Your task to perform on an android device: Show me the alarms in the clock app Image 0: 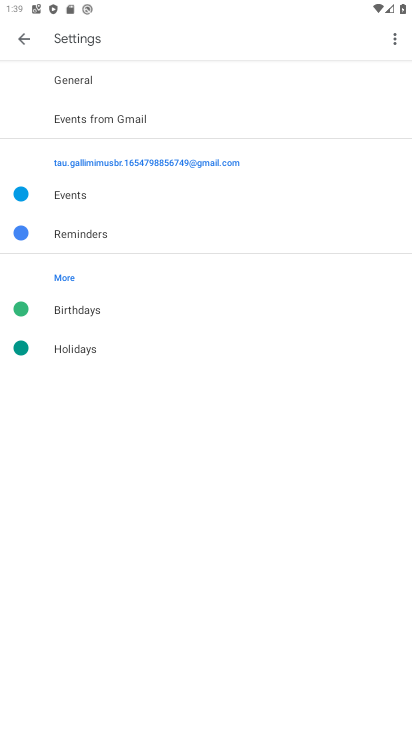
Step 0: press home button
Your task to perform on an android device: Show me the alarms in the clock app Image 1: 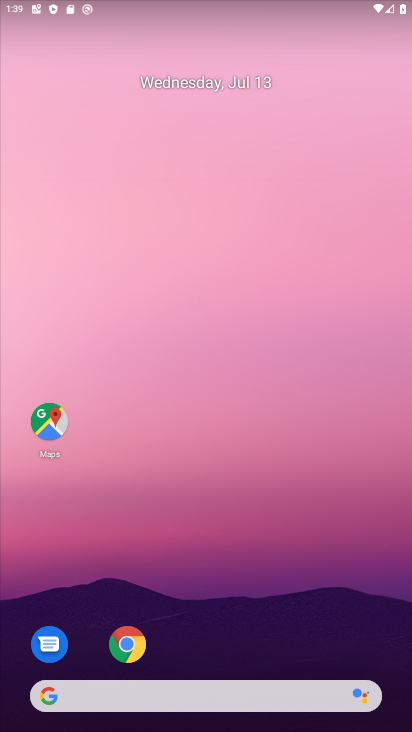
Step 1: drag from (222, 626) to (334, 31)
Your task to perform on an android device: Show me the alarms in the clock app Image 2: 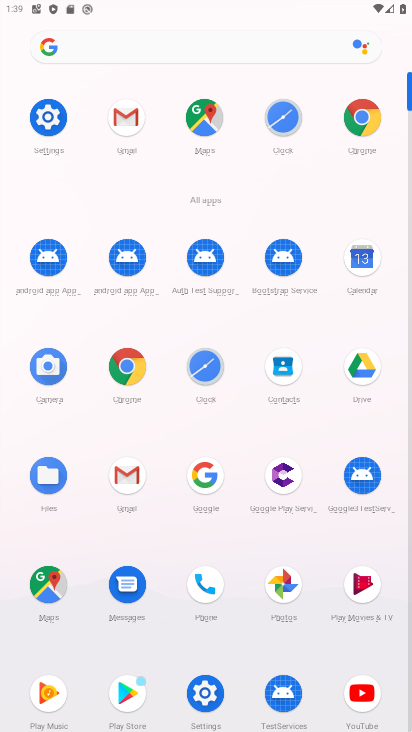
Step 2: click (203, 361)
Your task to perform on an android device: Show me the alarms in the clock app Image 3: 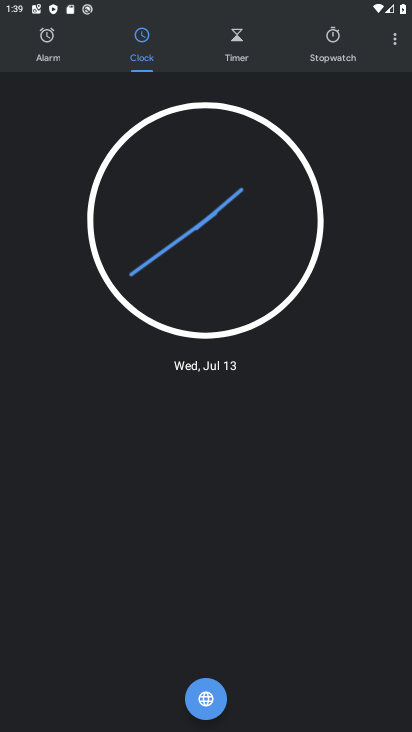
Step 3: click (61, 57)
Your task to perform on an android device: Show me the alarms in the clock app Image 4: 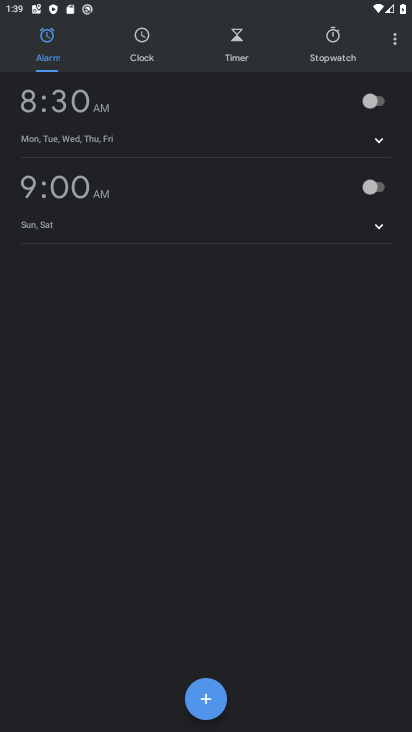
Step 4: task complete